Your task to perform on an android device: change keyboard looks Image 0: 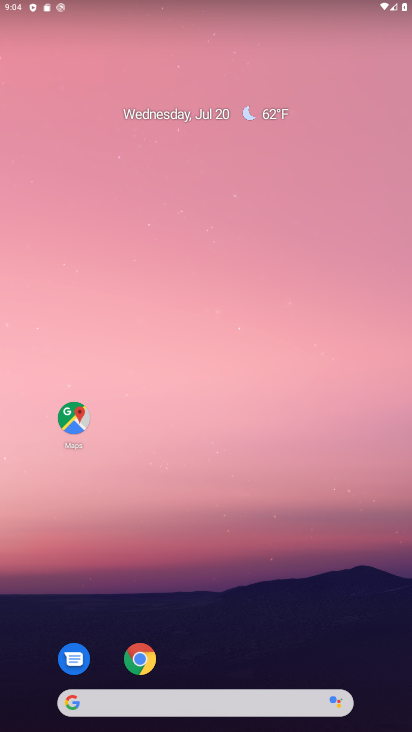
Step 0: drag from (205, 679) to (104, 73)
Your task to perform on an android device: change keyboard looks Image 1: 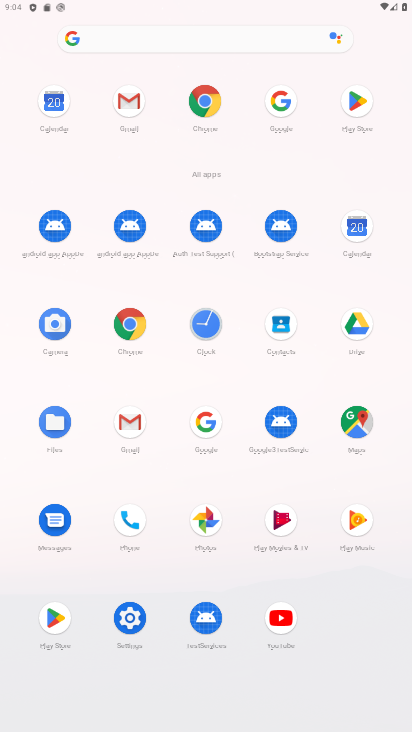
Step 1: click (128, 611)
Your task to perform on an android device: change keyboard looks Image 2: 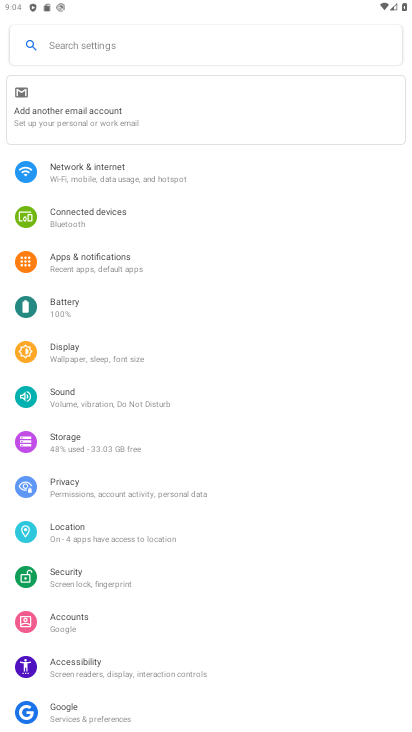
Step 2: drag from (77, 657) to (18, 242)
Your task to perform on an android device: change keyboard looks Image 3: 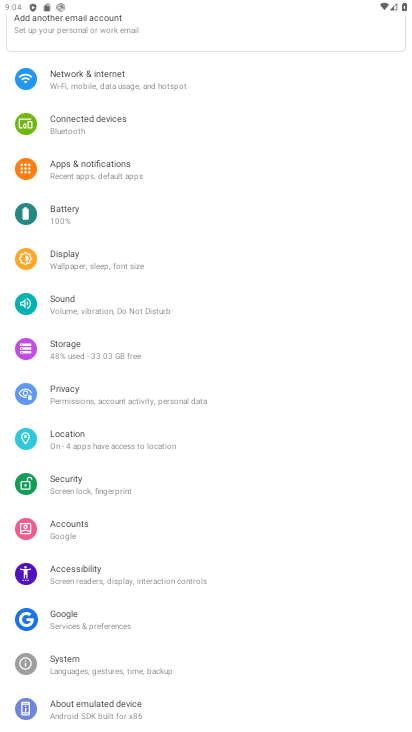
Step 3: click (92, 669)
Your task to perform on an android device: change keyboard looks Image 4: 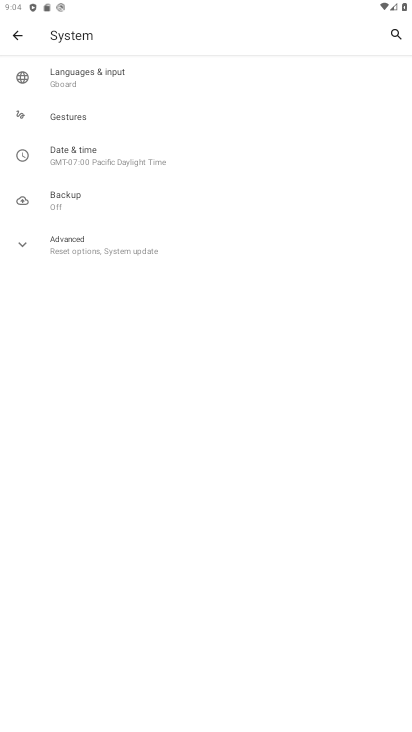
Step 4: click (77, 65)
Your task to perform on an android device: change keyboard looks Image 5: 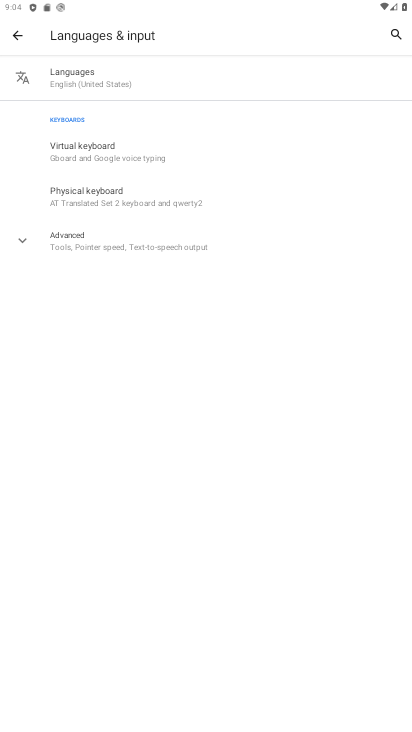
Step 5: click (94, 139)
Your task to perform on an android device: change keyboard looks Image 6: 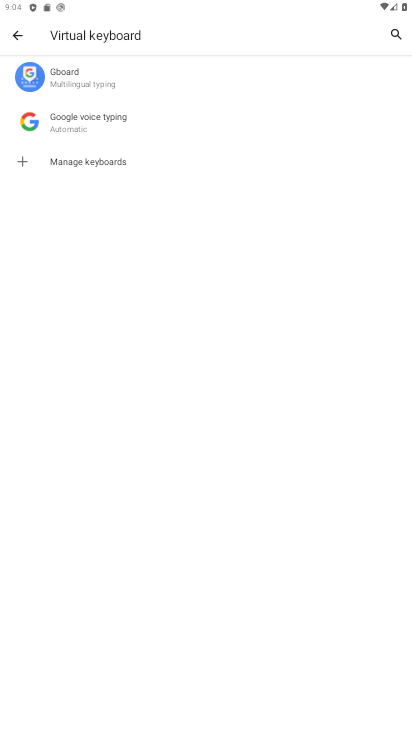
Step 6: click (57, 64)
Your task to perform on an android device: change keyboard looks Image 7: 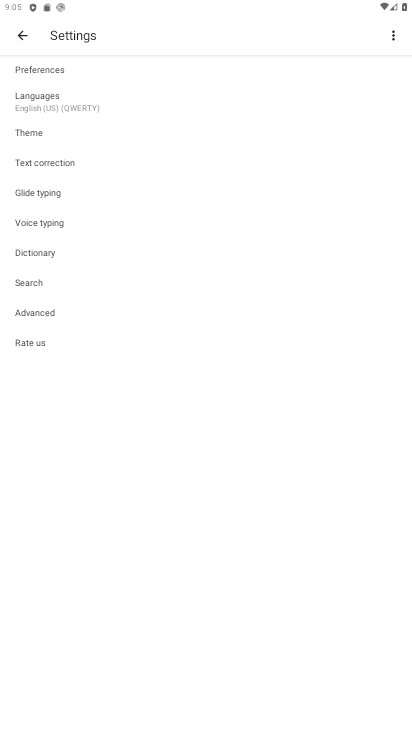
Step 7: task complete